Your task to perform on an android device: open the mobile data screen to see how much data has been used Image 0: 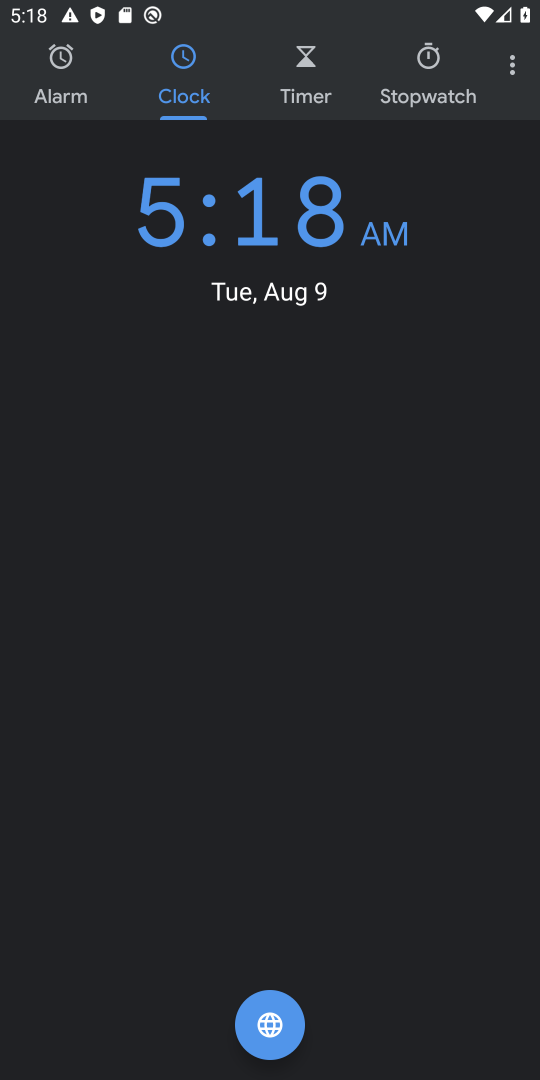
Step 0: press home button
Your task to perform on an android device: open the mobile data screen to see how much data has been used Image 1: 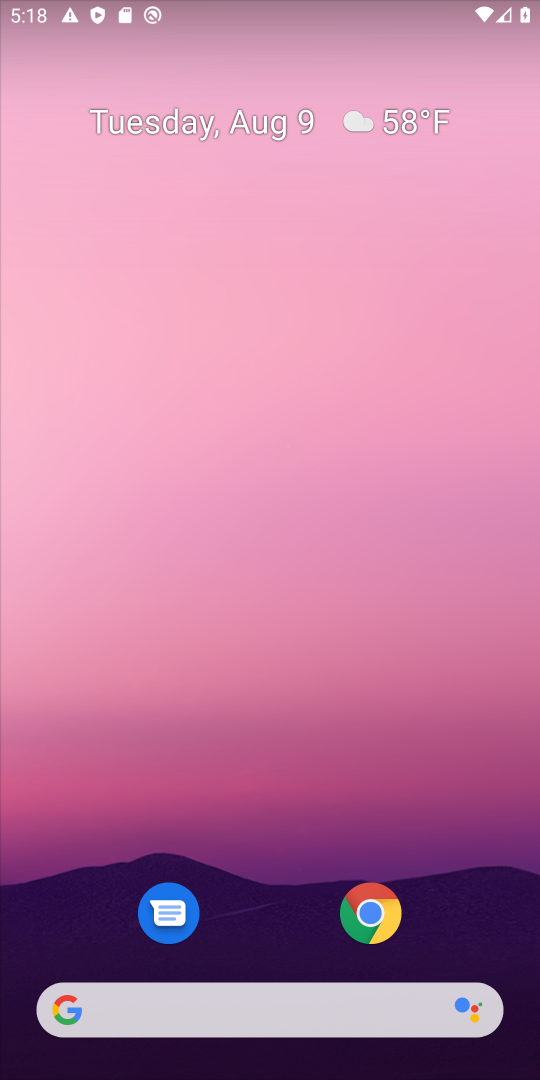
Step 1: drag from (249, 862) to (197, 20)
Your task to perform on an android device: open the mobile data screen to see how much data has been used Image 2: 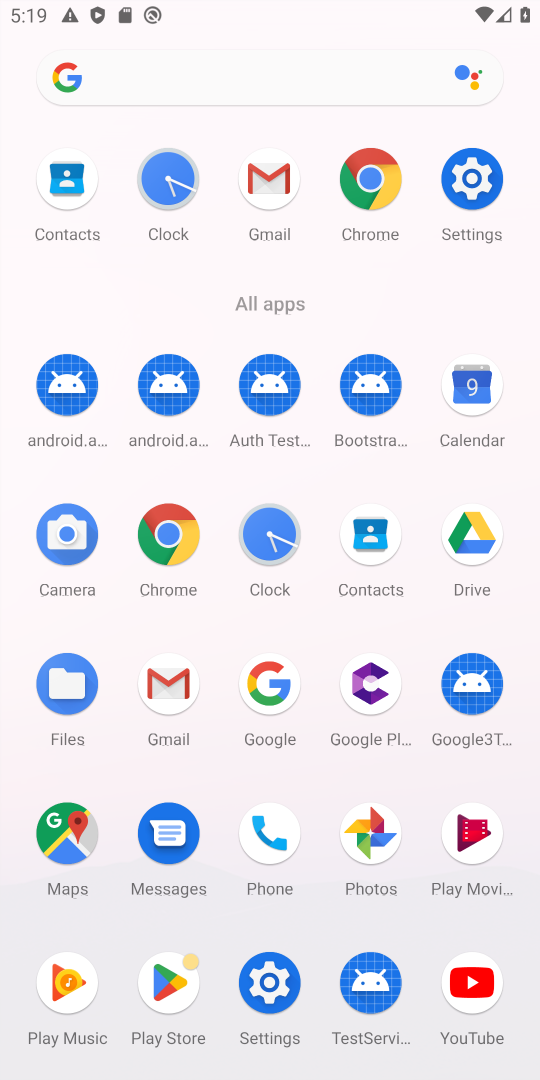
Step 2: click (470, 171)
Your task to perform on an android device: open the mobile data screen to see how much data has been used Image 3: 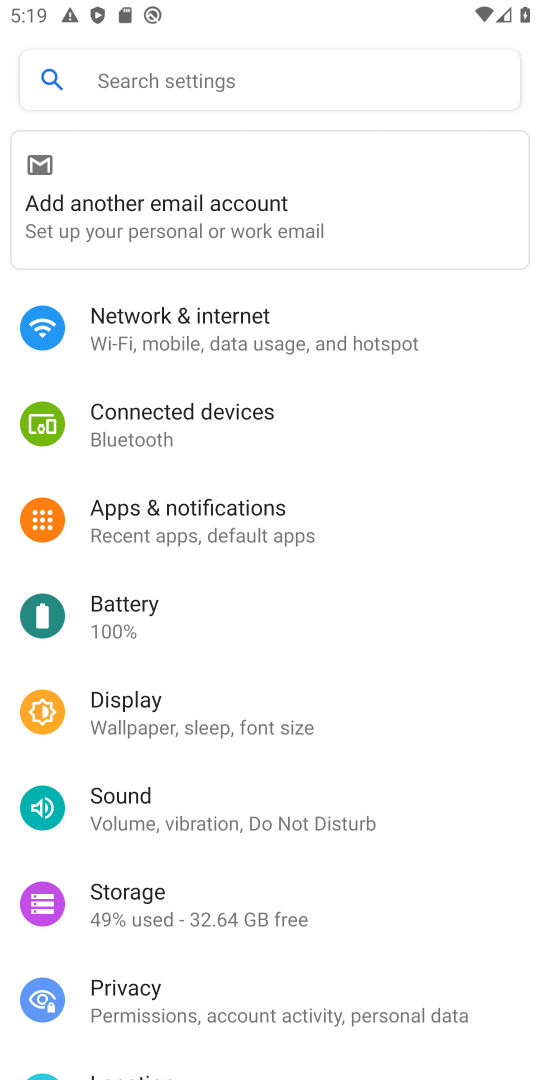
Step 3: click (234, 321)
Your task to perform on an android device: open the mobile data screen to see how much data has been used Image 4: 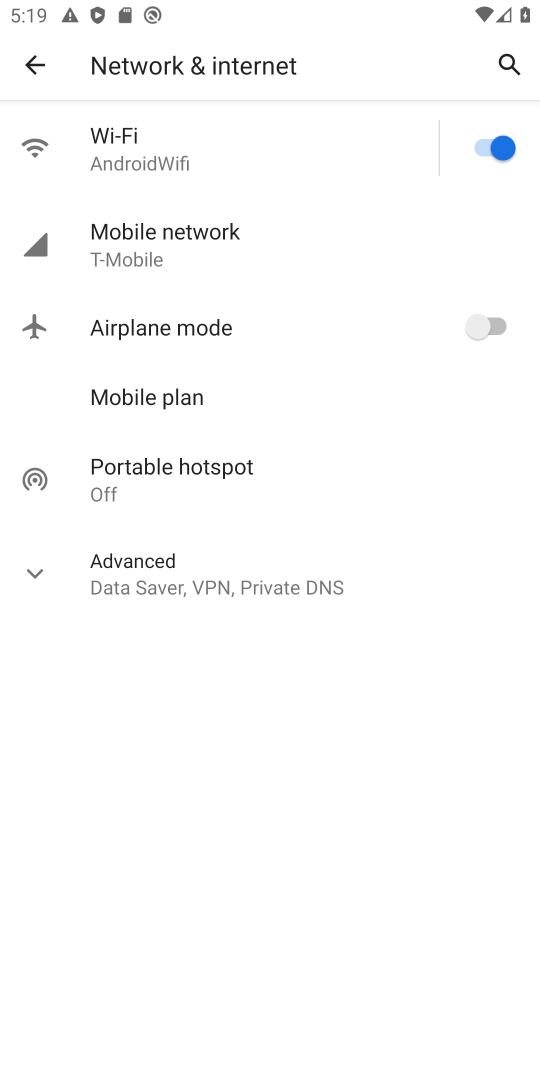
Step 4: click (168, 234)
Your task to perform on an android device: open the mobile data screen to see how much data has been used Image 5: 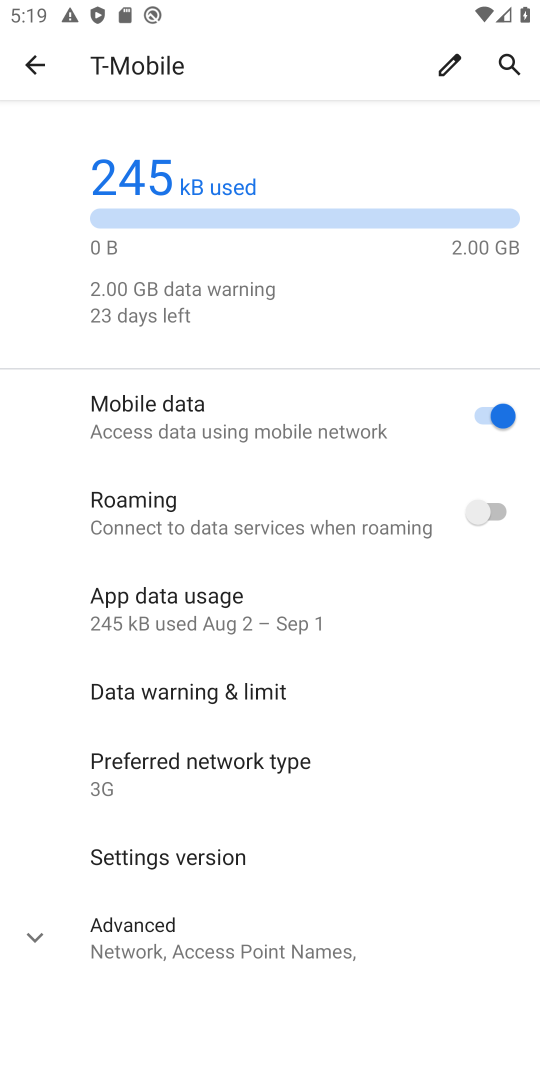
Step 5: click (119, 613)
Your task to perform on an android device: open the mobile data screen to see how much data has been used Image 6: 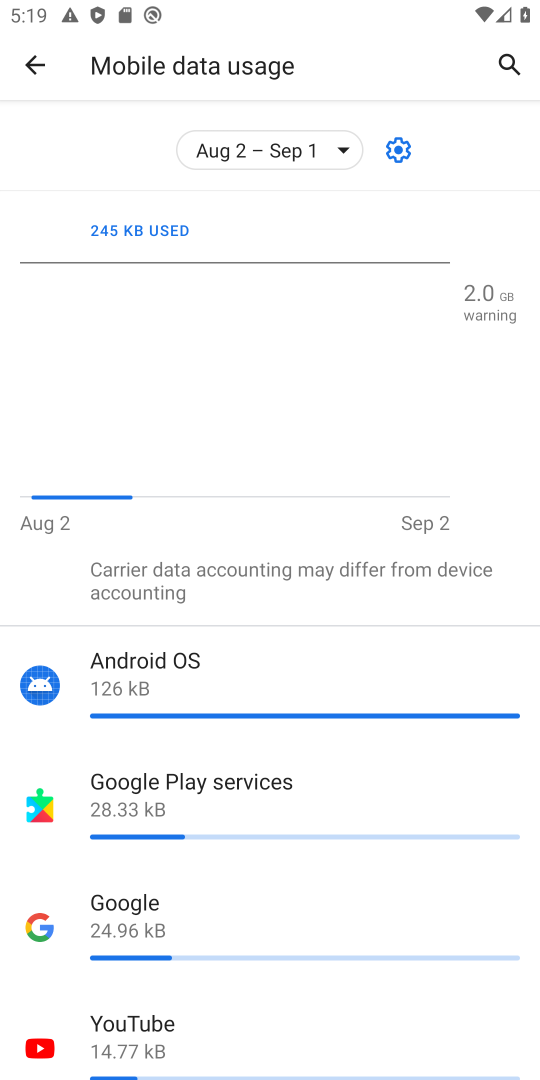
Step 6: task complete